Your task to perform on an android device: change your default location settings in chrome Image 0: 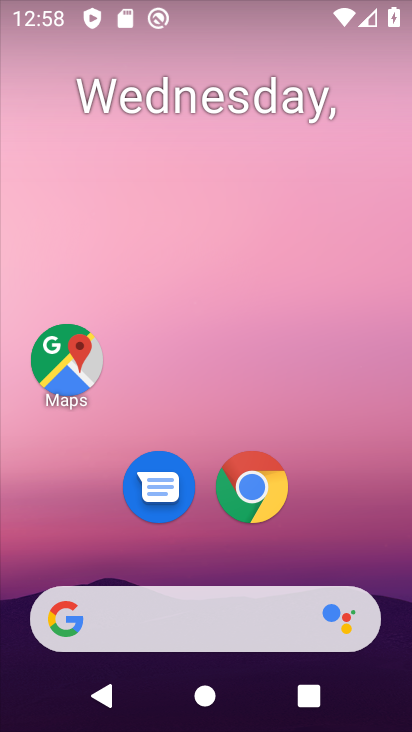
Step 0: drag from (328, 548) to (319, 121)
Your task to perform on an android device: change your default location settings in chrome Image 1: 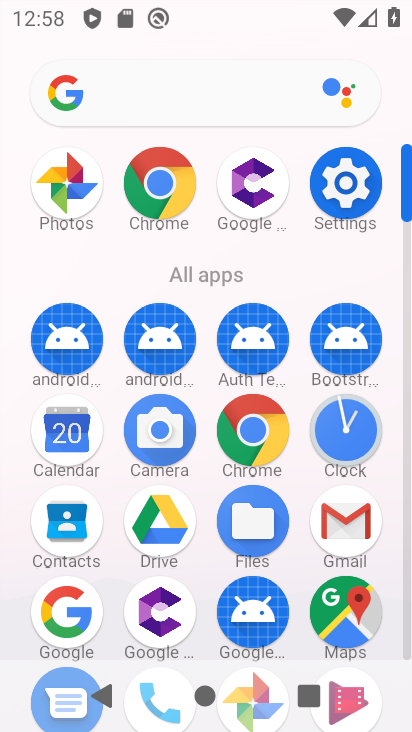
Step 1: click (265, 430)
Your task to perform on an android device: change your default location settings in chrome Image 2: 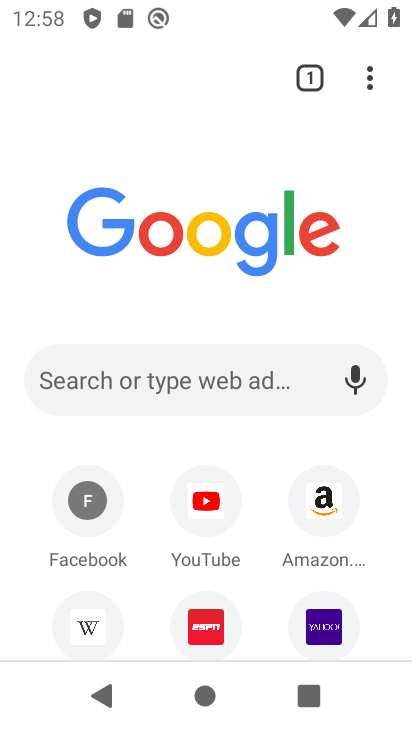
Step 2: click (362, 83)
Your task to perform on an android device: change your default location settings in chrome Image 3: 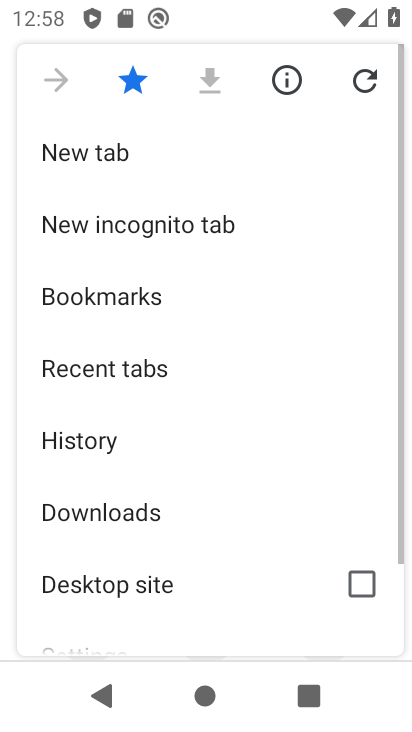
Step 3: drag from (226, 313) to (230, 117)
Your task to perform on an android device: change your default location settings in chrome Image 4: 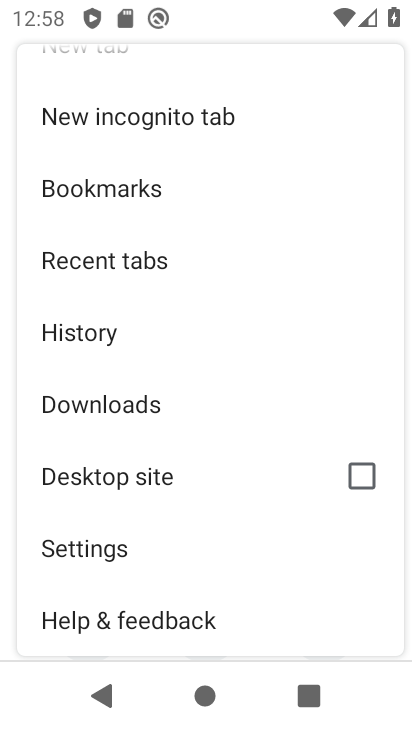
Step 4: click (99, 549)
Your task to perform on an android device: change your default location settings in chrome Image 5: 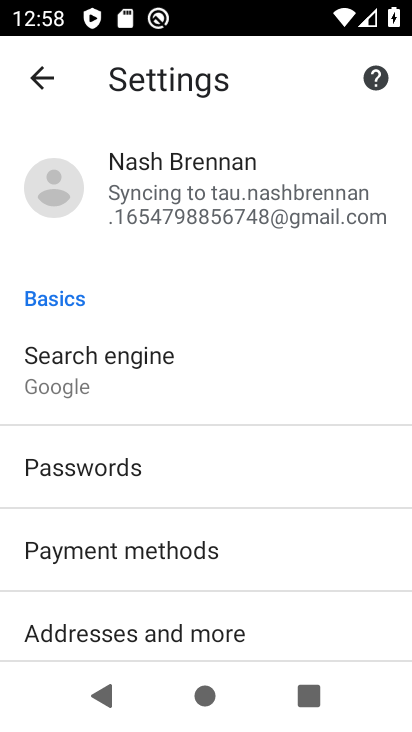
Step 5: drag from (247, 592) to (240, 108)
Your task to perform on an android device: change your default location settings in chrome Image 6: 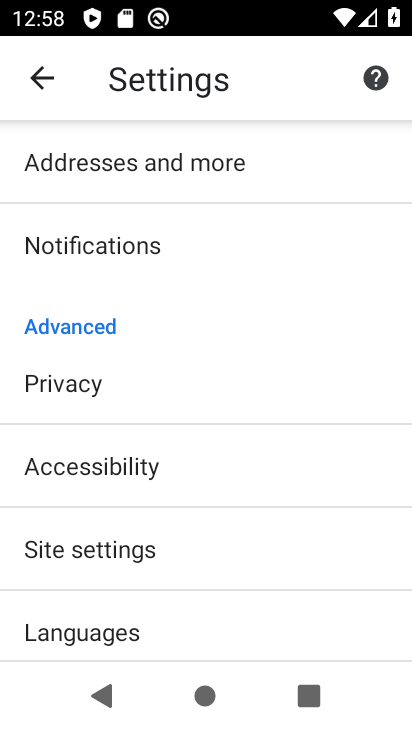
Step 6: click (138, 542)
Your task to perform on an android device: change your default location settings in chrome Image 7: 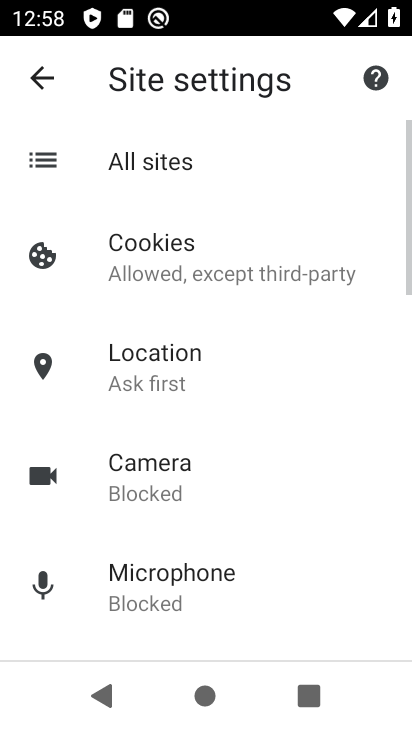
Step 7: click (181, 364)
Your task to perform on an android device: change your default location settings in chrome Image 8: 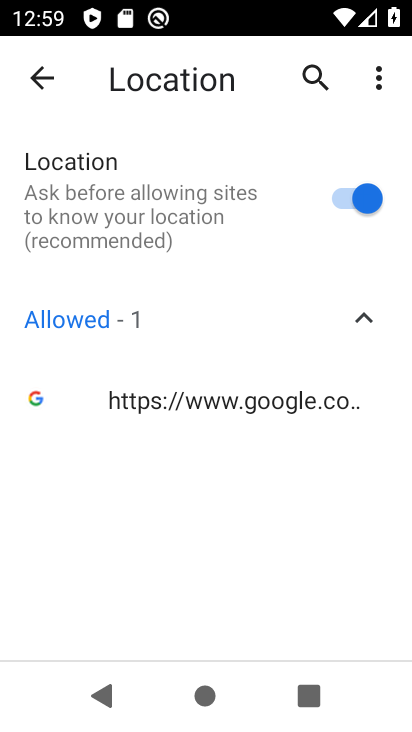
Step 8: click (357, 193)
Your task to perform on an android device: change your default location settings in chrome Image 9: 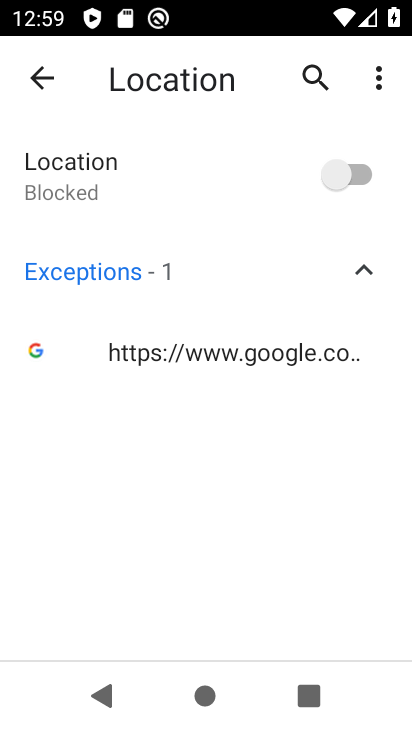
Step 9: task complete